Your task to perform on an android device: Open network settings Image 0: 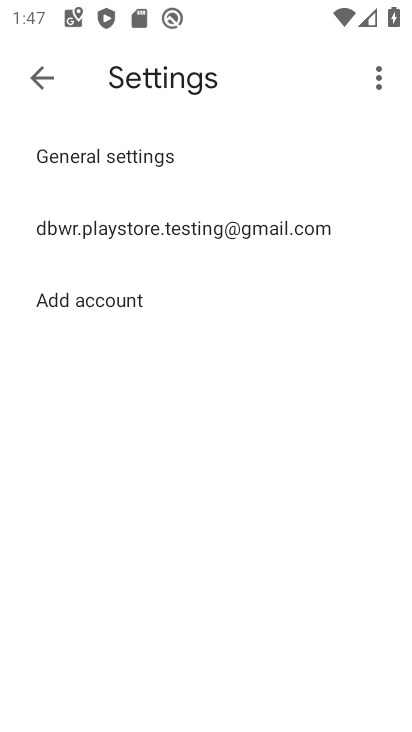
Step 0: press home button
Your task to perform on an android device: Open network settings Image 1: 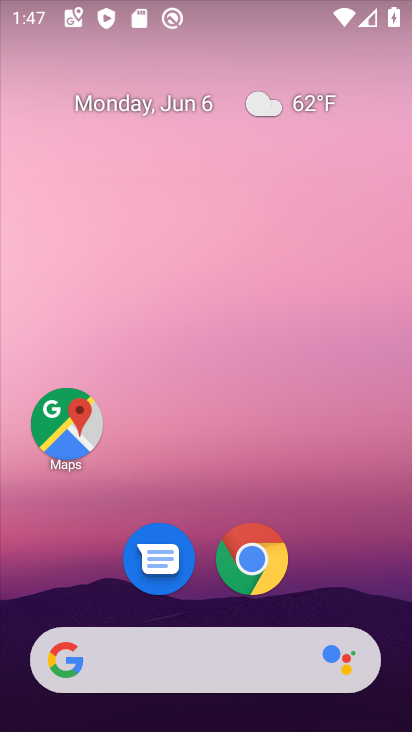
Step 1: drag from (72, 636) to (232, 165)
Your task to perform on an android device: Open network settings Image 2: 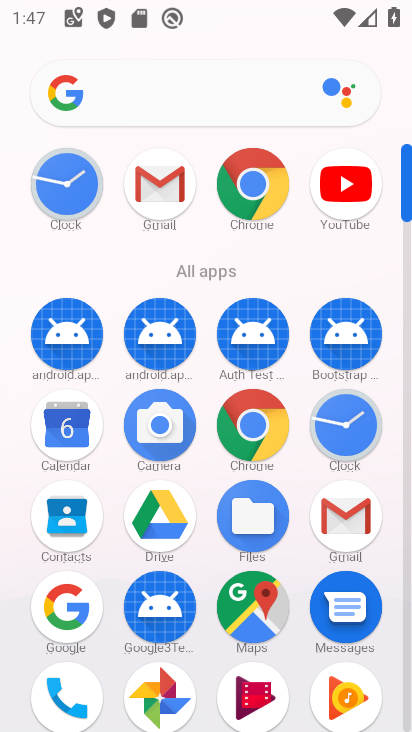
Step 2: drag from (162, 608) to (253, 302)
Your task to perform on an android device: Open network settings Image 3: 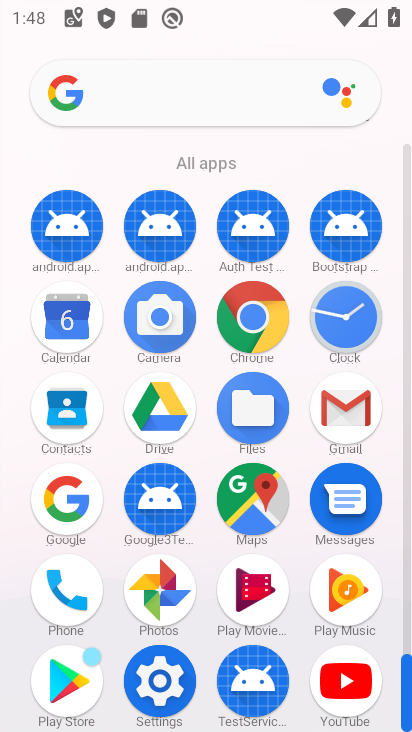
Step 3: click (142, 685)
Your task to perform on an android device: Open network settings Image 4: 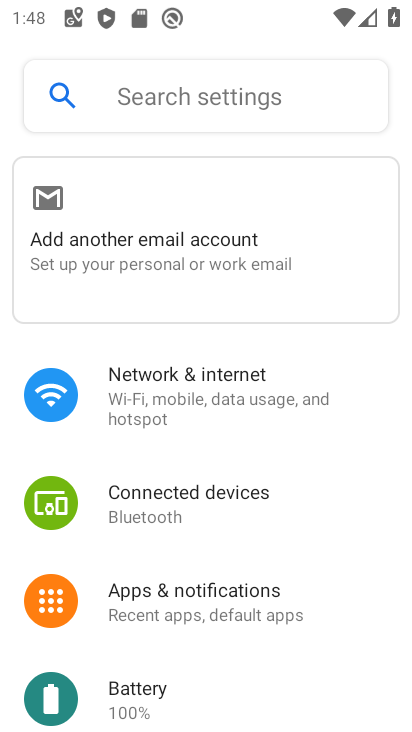
Step 4: click (214, 401)
Your task to perform on an android device: Open network settings Image 5: 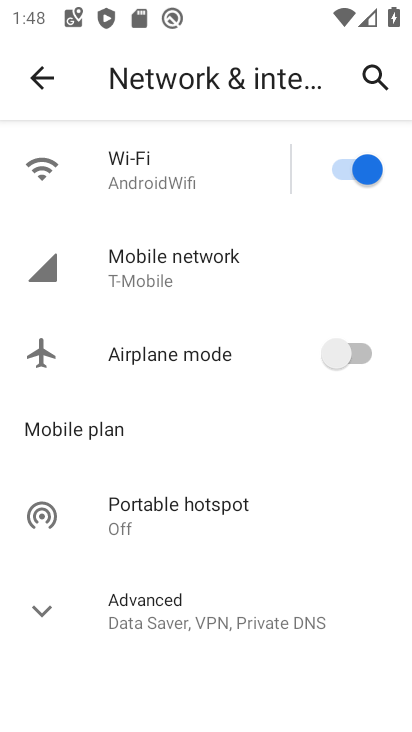
Step 5: click (195, 275)
Your task to perform on an android device: Open network settings Image 6: 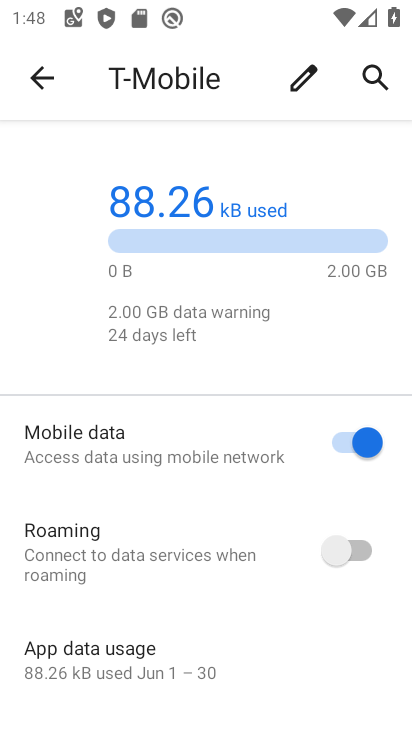
Step 6: task complete